Your task to perform on an android device: see tabs open on other devices in the chrome app Image 0: 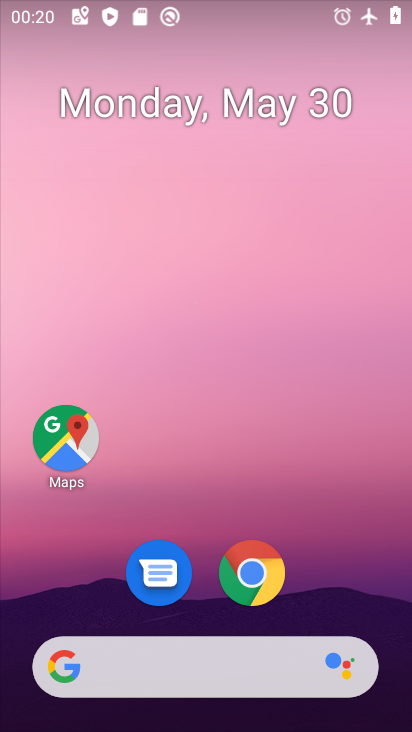
Step 0: click (252, 585)
Your task to perform on an android device: see tabs open on other devices in the chrome app Image 1: 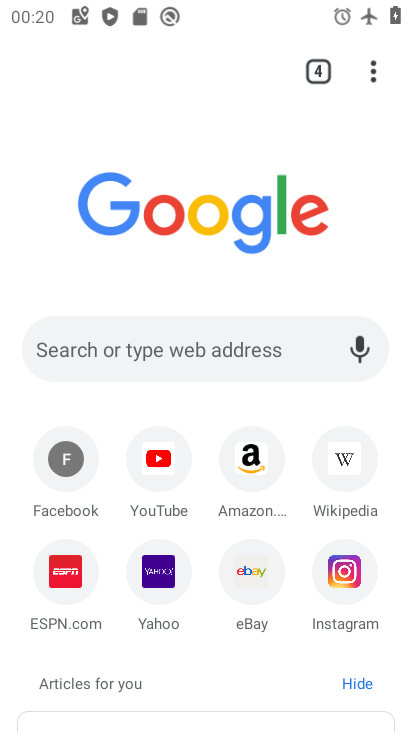
Step 1: click (378, 75)
Your task to perform on an android device: see tabs open on other devices in the chrome app Image 2: 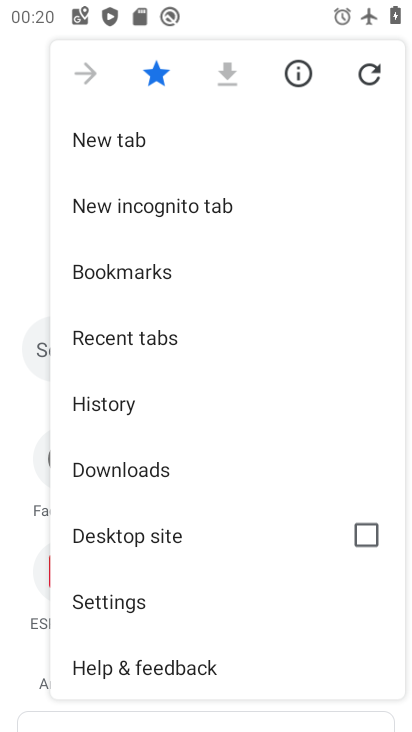
Step 2: click (169, 340)
Your task to perform on an android device: see tabs open on other devices in the chrome app Image 3: 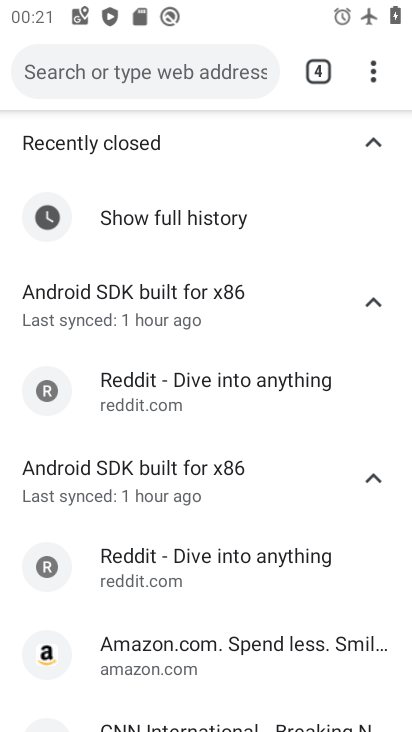
Step 3: task complete